Your task to perform on an android device: Turn off the flashlight Image 0: 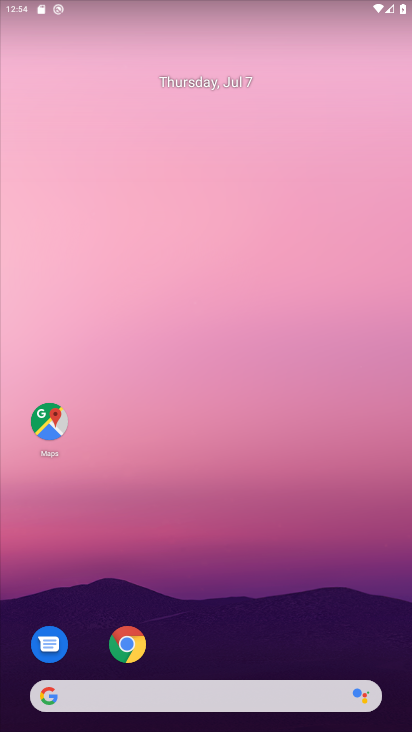
Step 0: drag from (169, 6) to (223, 358)
Your task to perform on an android device: Turn off the flashlight Image 1: 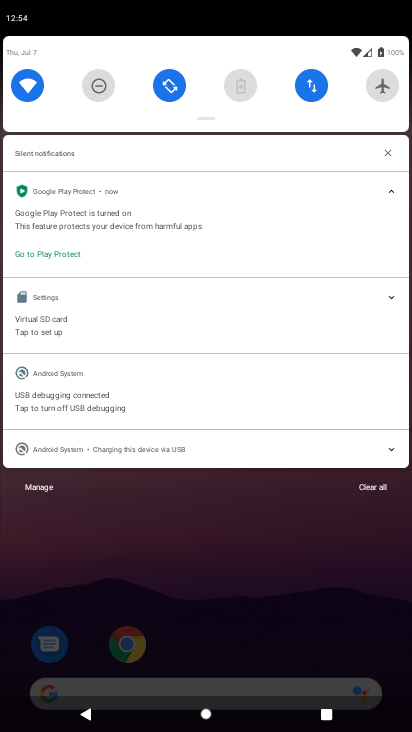
Step 1: task complete